Your task to perform on an android device: What's on the menu at Chick-fil-A? Image 0: 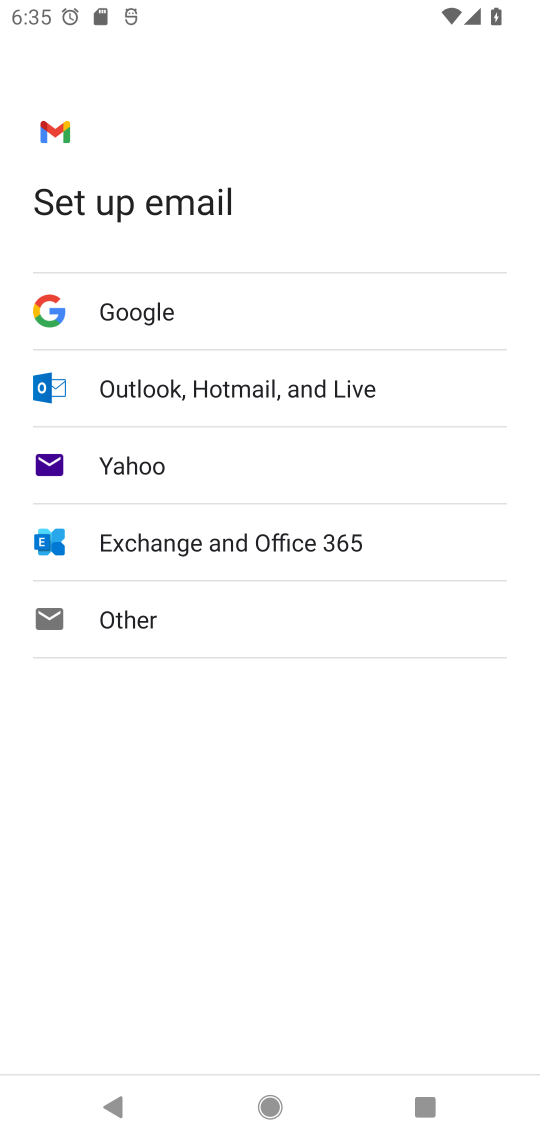
Step 0: press home button
Your task to perform on an android device: What's on the menu at Chick-fil-A? Image 1: 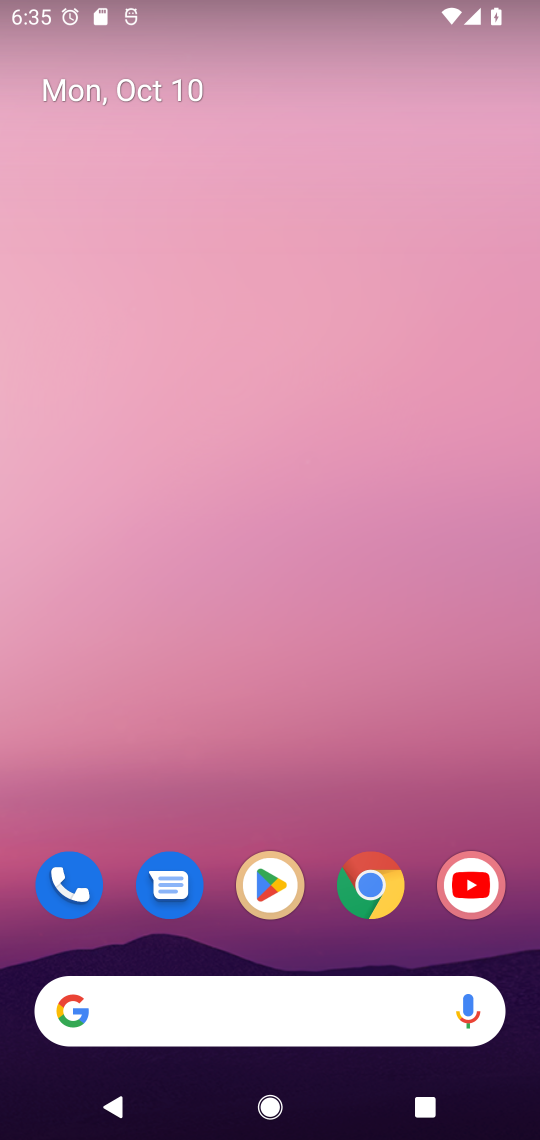
Step 1: click (379, 887)
Your task to perform on an android device: What's on the menu at Chick-fil-A? Image 2: 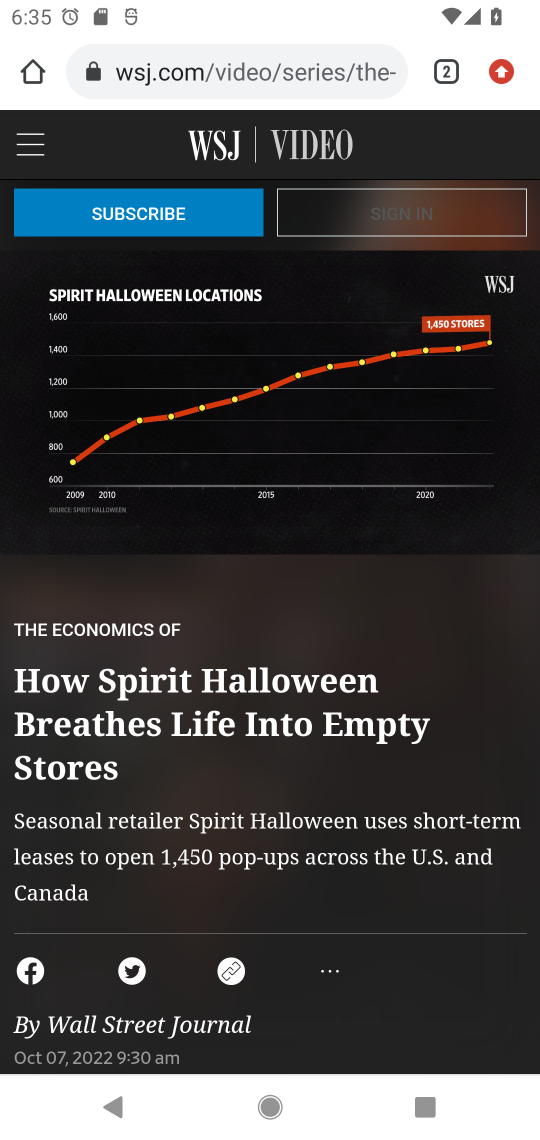
Step 2: click (257, 65)
Your task to perform on an android device: What's on the menu at Chick-fil-A? Image 3: 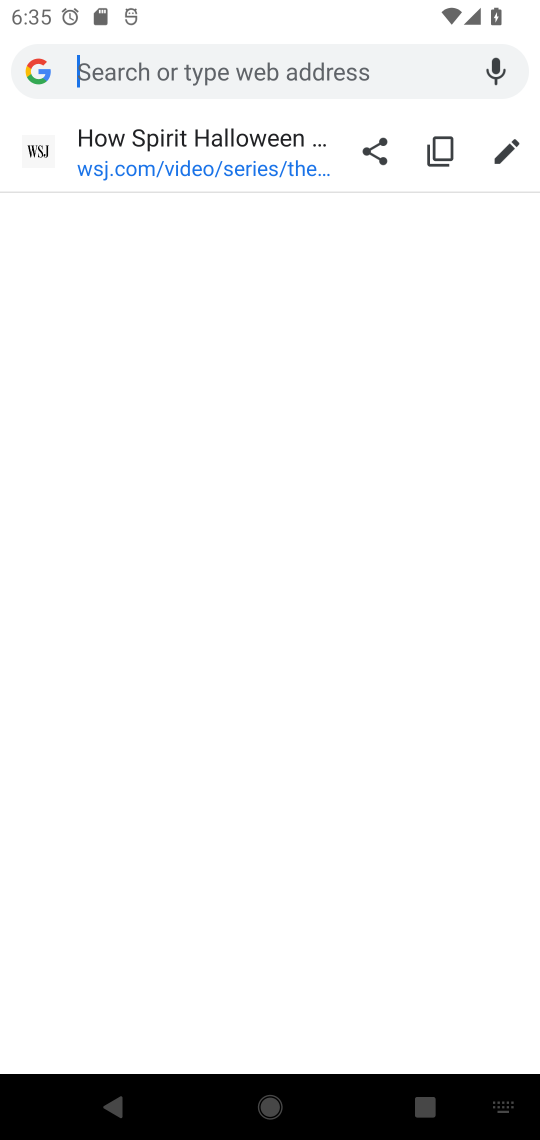
Step 3: type "menu at Chick-fil-A"
Your task to perform on an android device: What's on the menu at Chick-fil-A? Image 4: 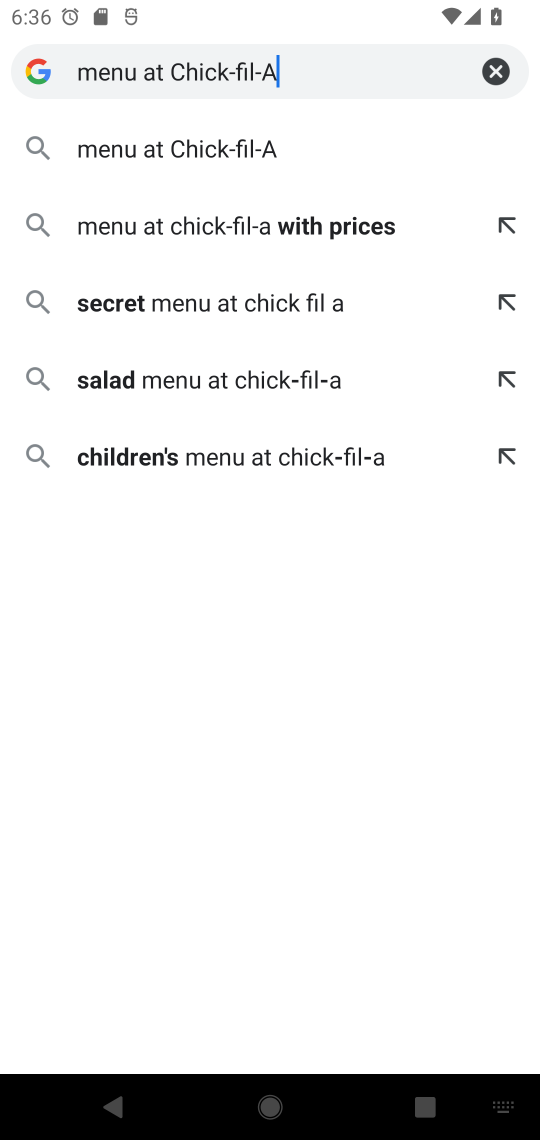
Step 4: click (159, 155)
Your task to perform on an android device: What's on the menu at Chick-fil-A? Image 5: 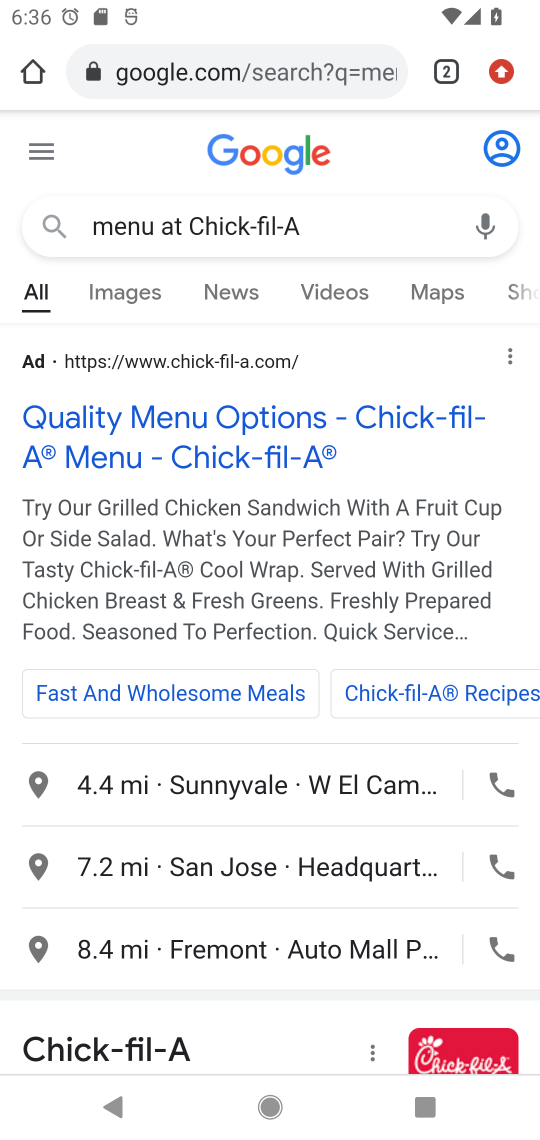
Step 5: click (226, 427)
Your task to perform on an android device: What's on the menu at Chick-fil-A? Image 6: 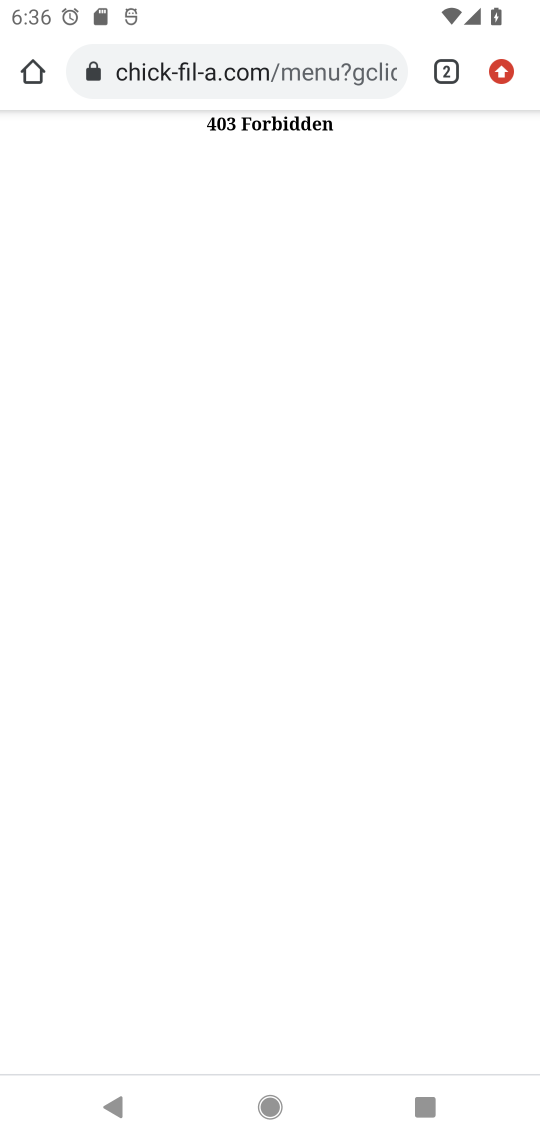
Step 6: click (115, 1098)
Your task to perform on an android device: What's on the menu at Chick-fil-A? Image 7: 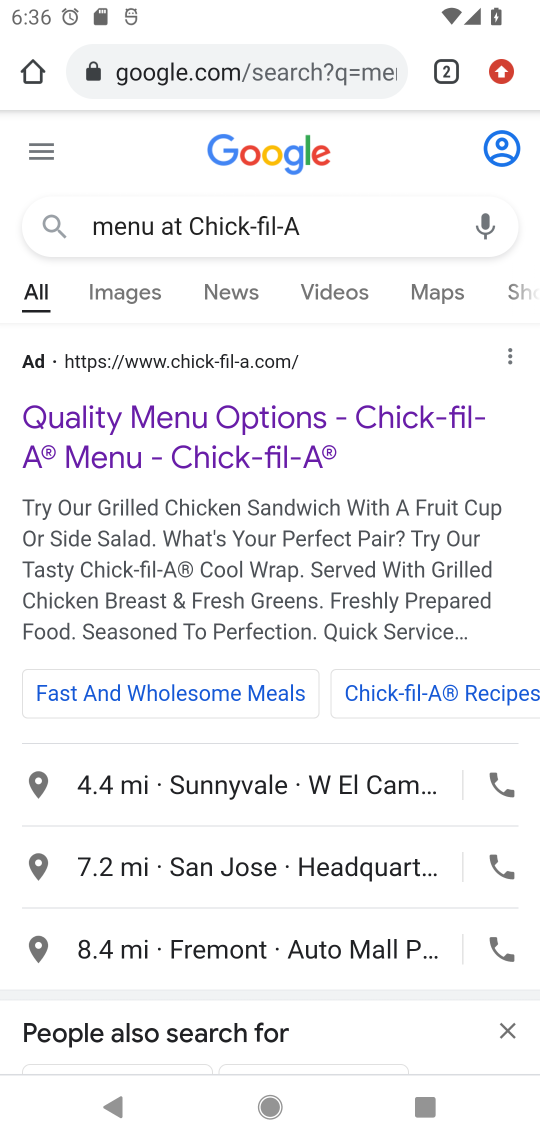
Step 7: drag from (331, 738) to (350, 142)
Your task to perform on an android device: What's on the menu at Chick-fil-A? Image 8: 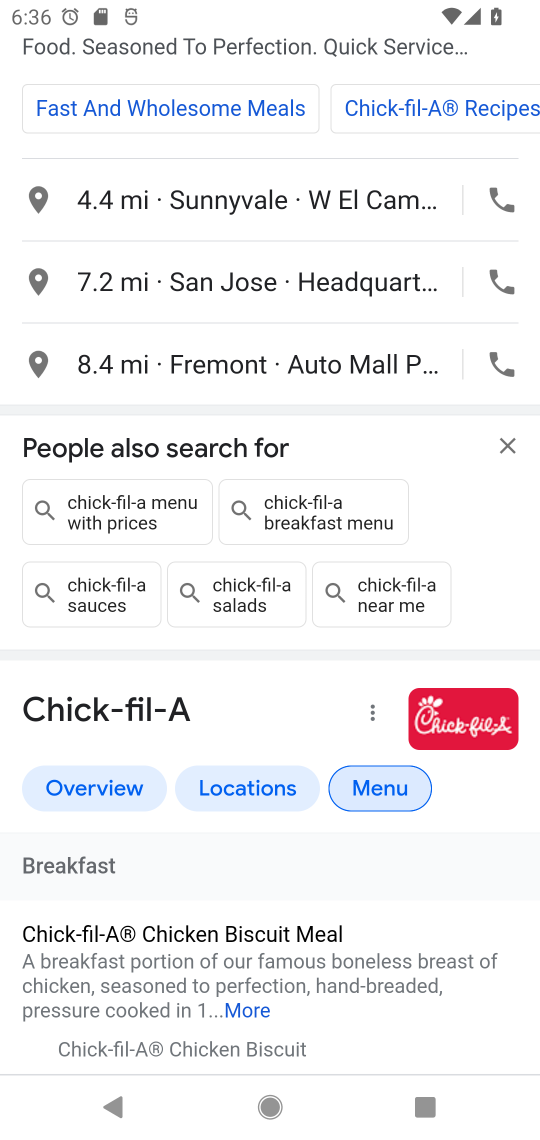
Step 8: drag from (389, 898) to (373, 270)
Your task to perform on an android device: What's on the menu at Chick-fil-A? Image 9: 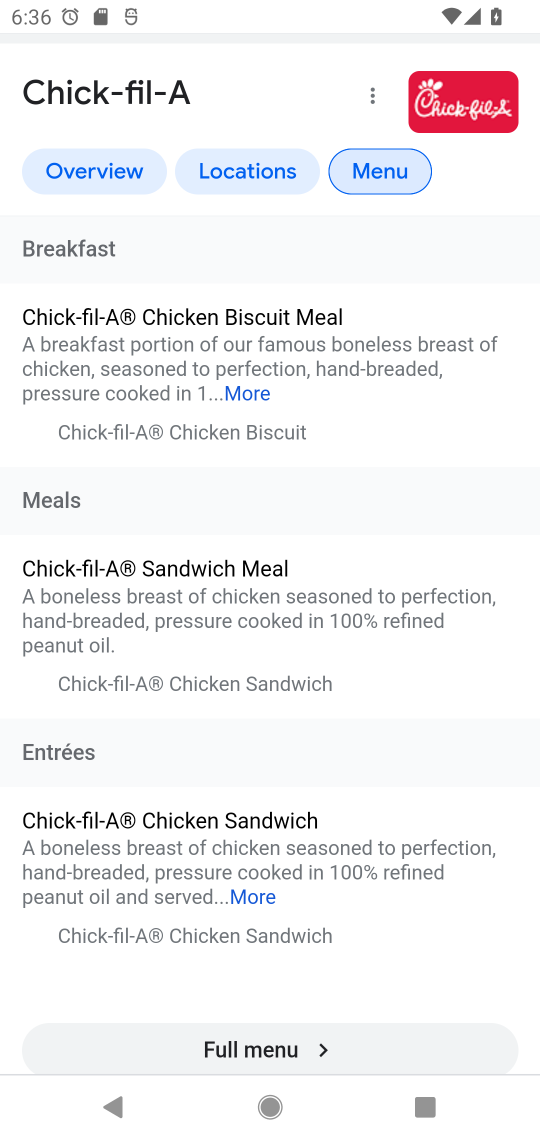
Step 9: click (265, 1049)
Your task to perform on an android device: What's on the menu at Chick-fil-A? Image 10: 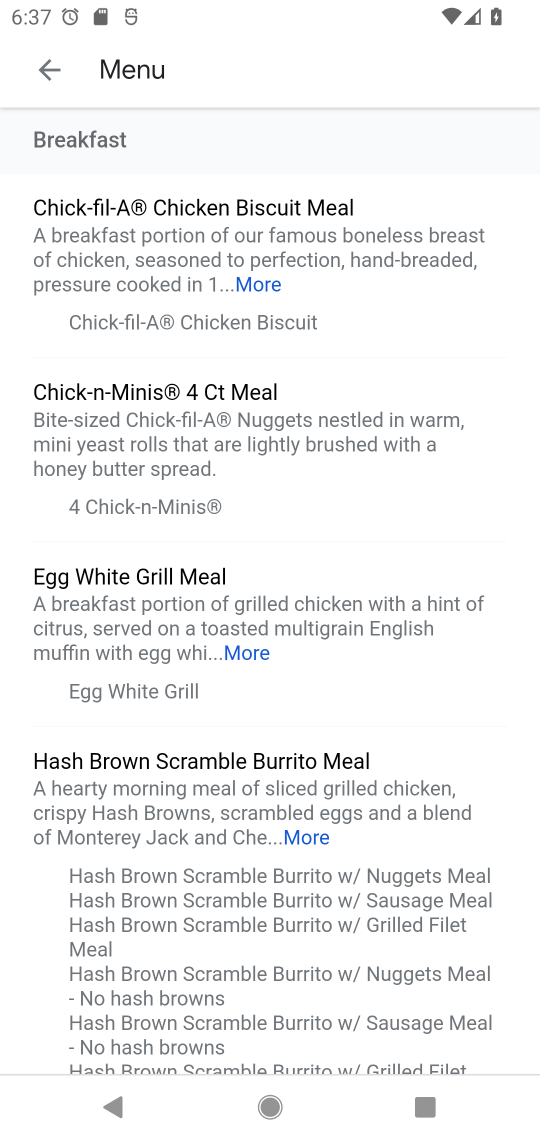
Step 10: task complete